Your task to perform on an android device: Open Chrome and go to settings Image 0: 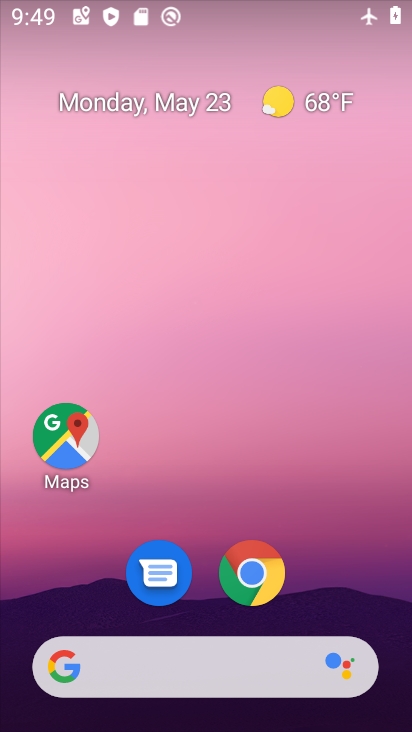
Step 0: drag from (317, 575) to (304, 165)
Your task to perform on an android device: Open Chrome and go to settings Image 1: 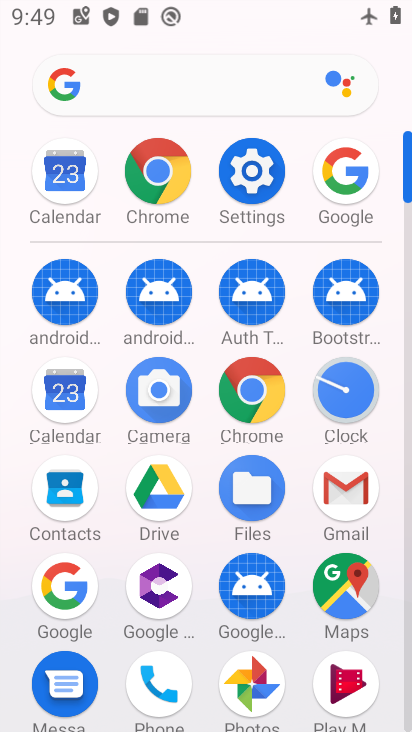
Step 1: click (163, 171)
Your task to perform on an android device: Open Chrome and go to settings Image 2: 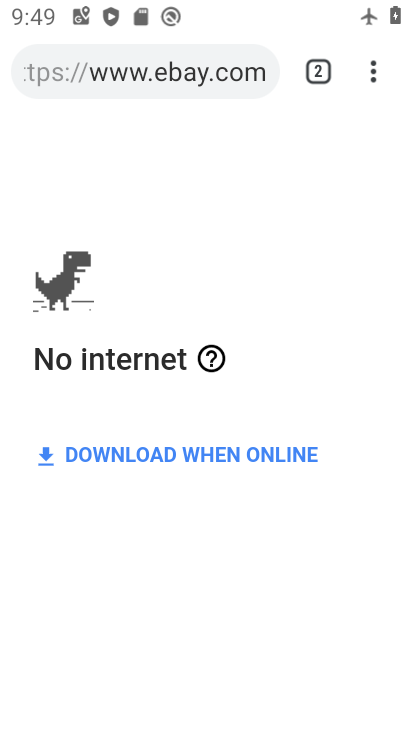
Step 2: click (380, 78)
Your task to perform on an android device: Open Chrome and go to settings Image 3: 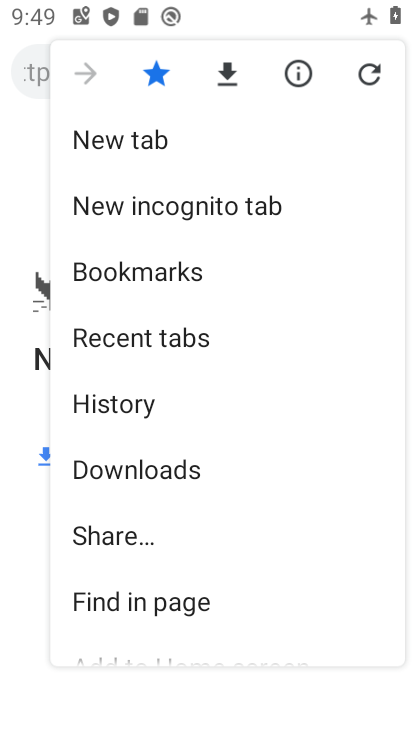
Step 3: drag from (333, 548) to (318, 61)
Your task to perform on an android device: Open Chrome and go to settings Image 4: 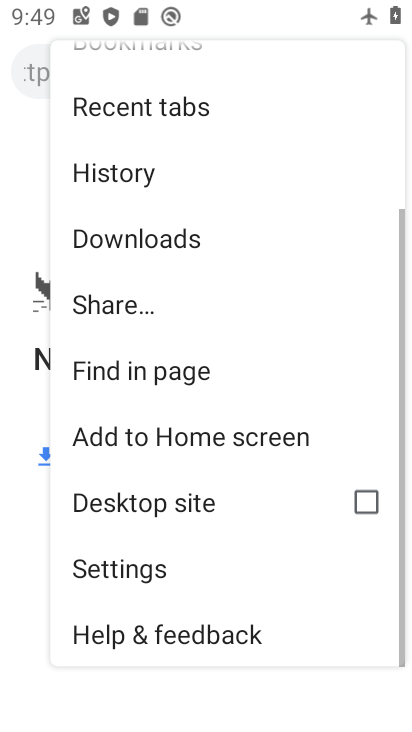
Step 4: drag from (326, 334) to (330, 107)
Your task to perform on an android device: Open Chrome and go to settings Image 5: 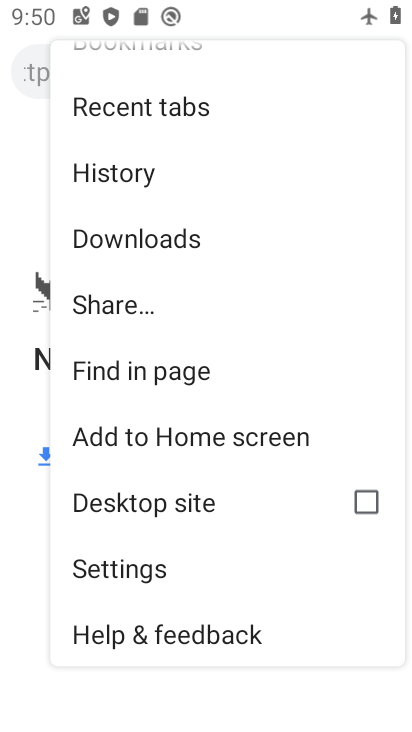
Step 5: click (124, 574)
Your task to perform on an android device: Open Chrome and go to settings Image 6: 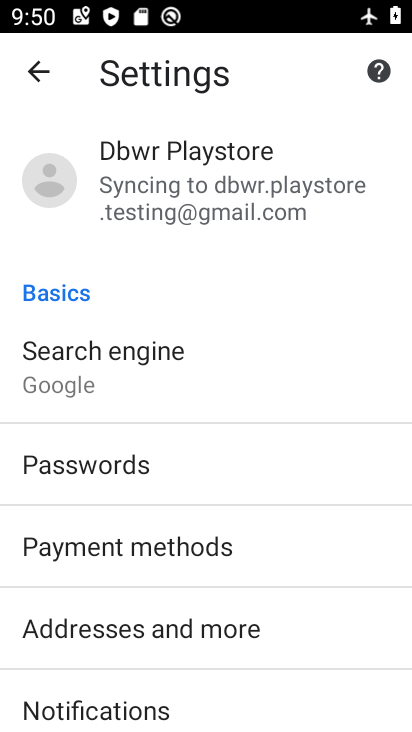
Step 6: task complete